Your task to perform on an android device: Open Chrome and go to settings Image 0: 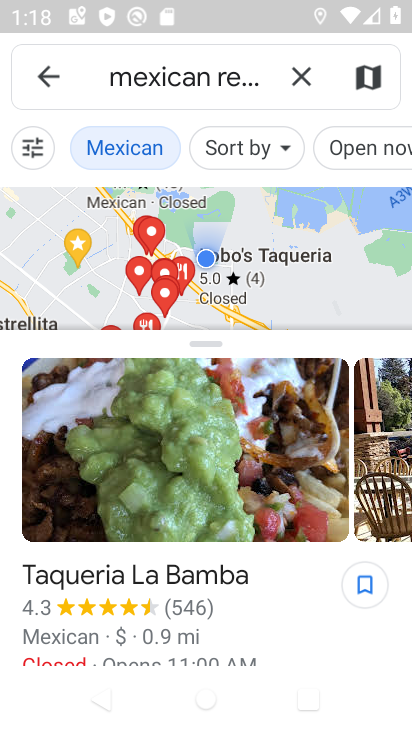
Step 0: press home button
Your task to perform on an android device: Open Chrome and go to settings Image 1: 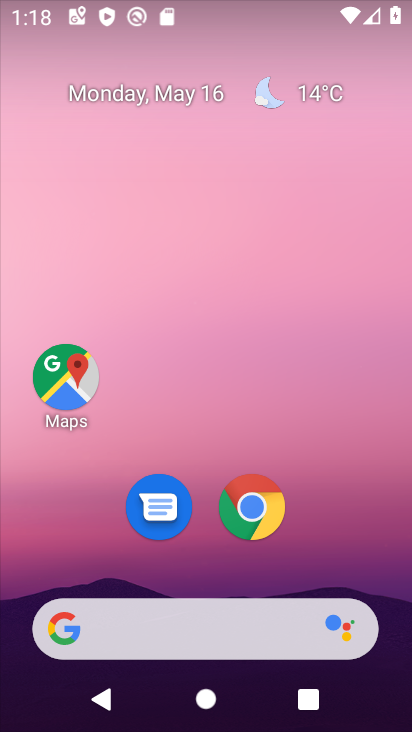
Step 1: drag from (306, 569) to (289, 215)
Your task to perform on an android device: Open Chrome and go to settings Image 2: 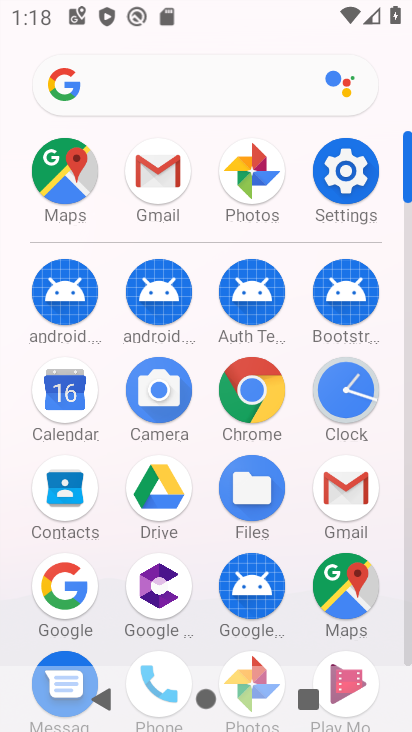
Step 2: click (247, 399)
Your task to perform on an android device: Open Chrome and go to settings Image 3: 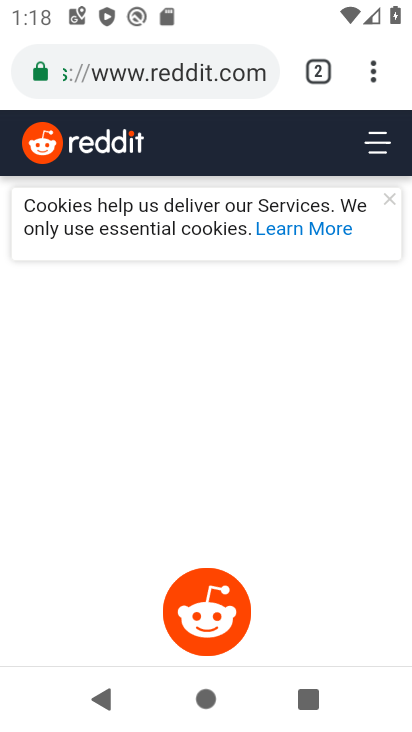
Step 3: click (373, 62)
Your task to perform on an android device: Open Chrome and go to settings Image 4: 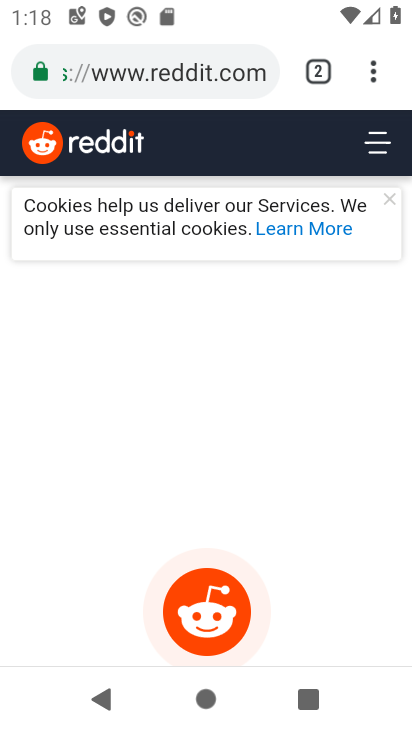
Step 4: click (370, 76)
Your task to perform on an android device: Open Chrome and go to settings Image 5: 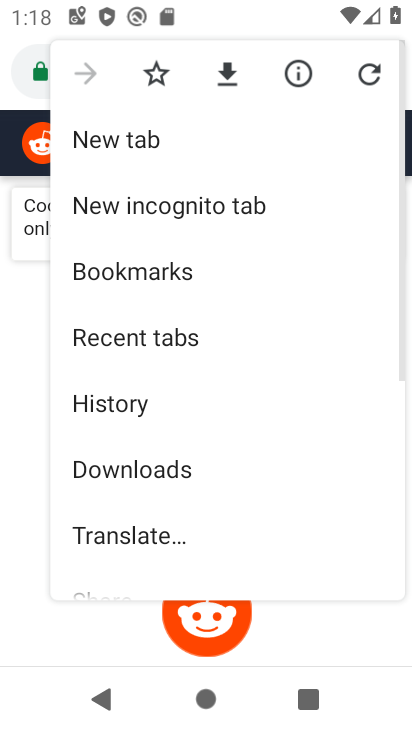
Step 5: drag from (183, 479) to (254, 190)
Your task to perform on an android device: Open Chrome and go to settings Image 6: 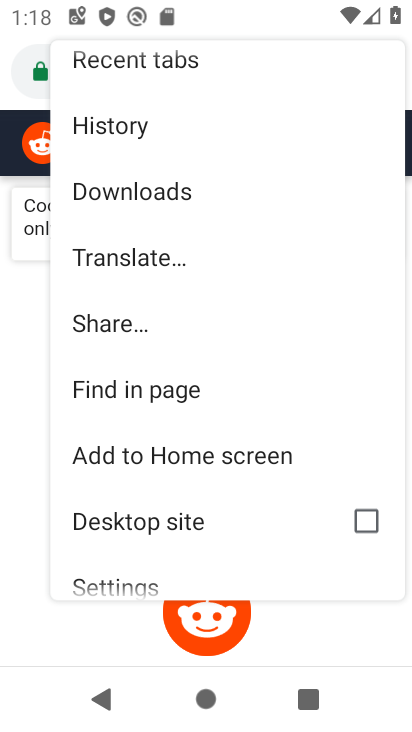
Step 6: drag from (159, 580) to (215, 340)
Your task to perform on an android device: Open Chrome and go to settings Image 7: 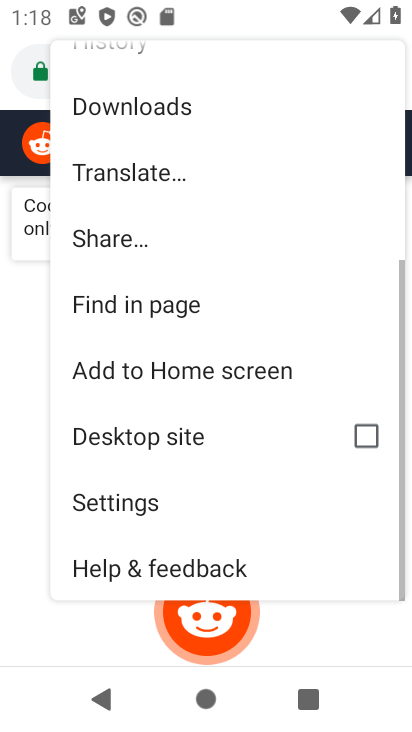
Step 7: click (170, 504)
Your task to perform on an android device: Open Chrome and go to settings Image 8: 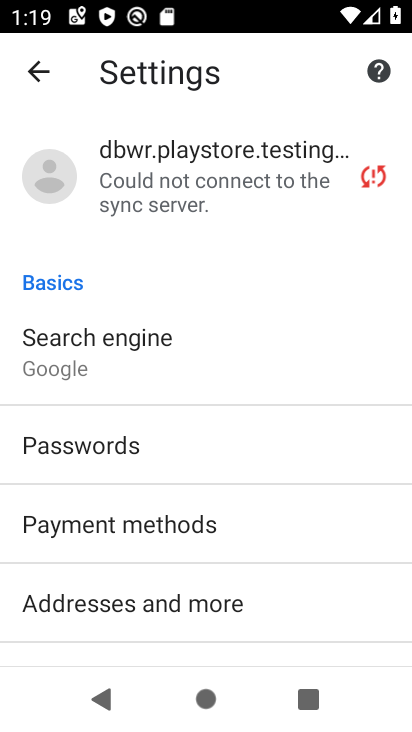
Step 8: task complete